Your task to perform on an android device: turn smart compose on in the gmail app Image 0: 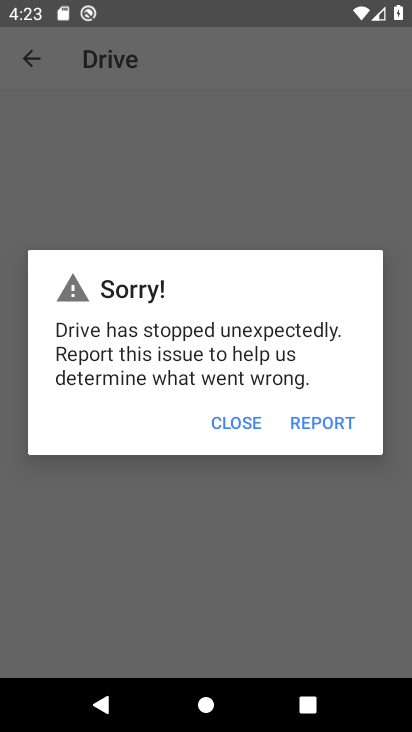
Step 0: press home button
Your task to perform on an android device: turn smart compose on in the gmail app Image 1: 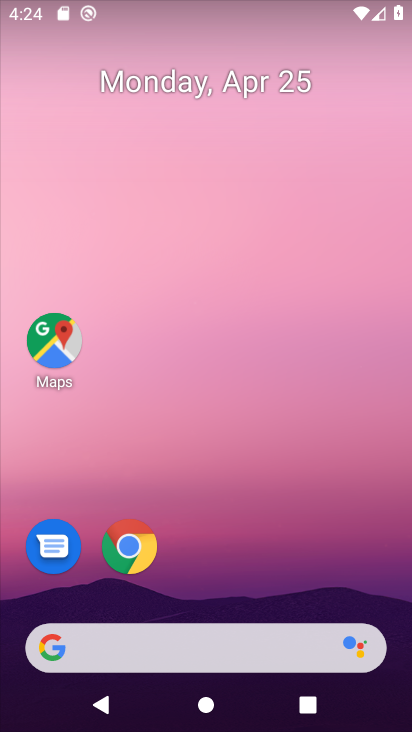
Step 1: drag from (279, 453) to (390, 2)
Your task to perform on an android device: turn smart compose on in the gmail app Image 2: 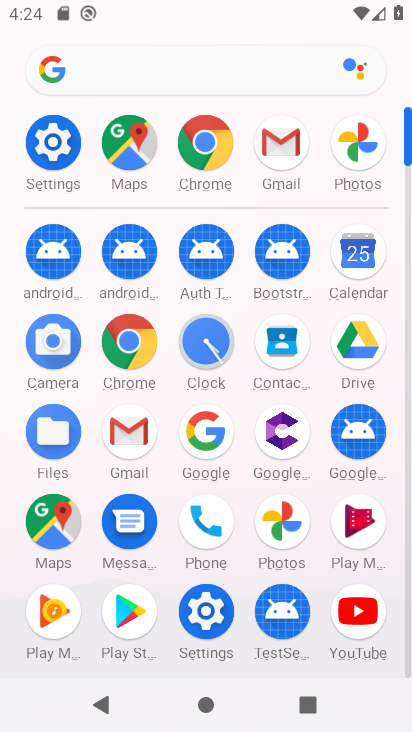
Step 2: click (264, 141)
Your task to perform on an android device: turn smart compose on in the gmail app Image 3: 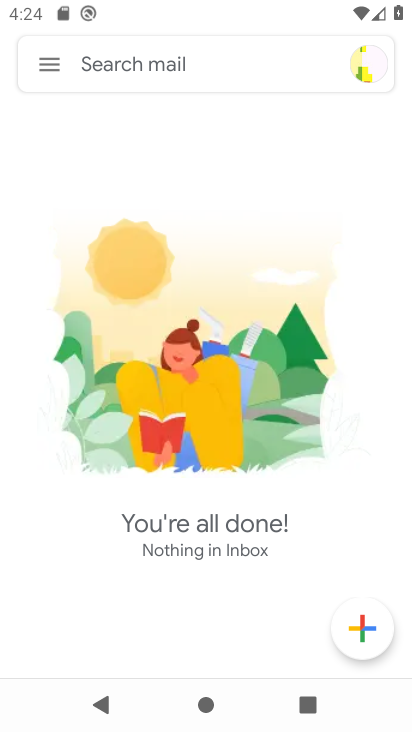
Step 3: click (43, 76)
Your task to perform on an android device: turn smart compose on in the gmail app Image 4: 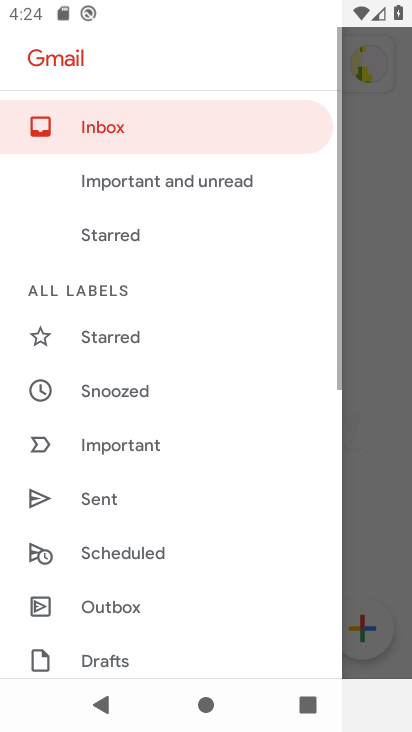
Step 4: drag from (206, 486) to (333, 119)
Your task to perform on an android device: turn smart compose on in the gmail app Image 5: 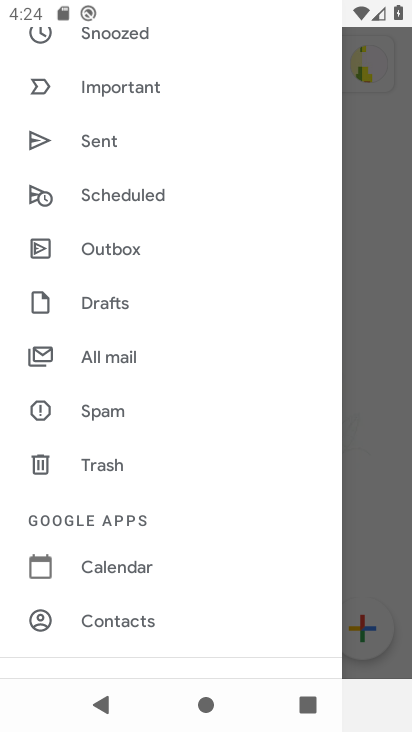
Step 5: drag from (222, 477) to (307, 42)
Your task to perform on an android device: turn smart compose on in the gmail app Image 6: 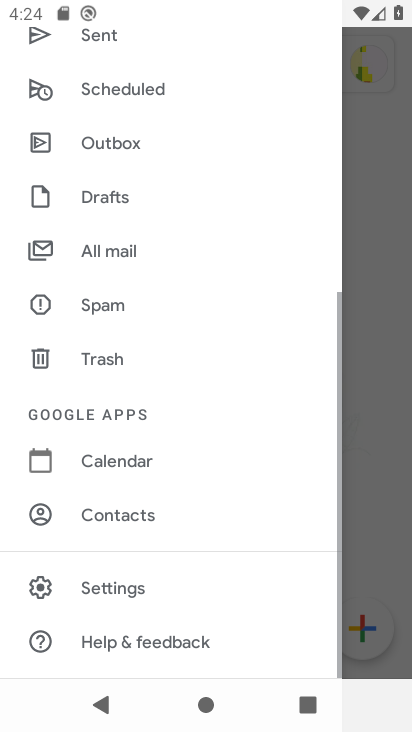
Step 6: click (150, 568)
Your task to perform on an android device: turn smart compose on in the gmail app Image 7: 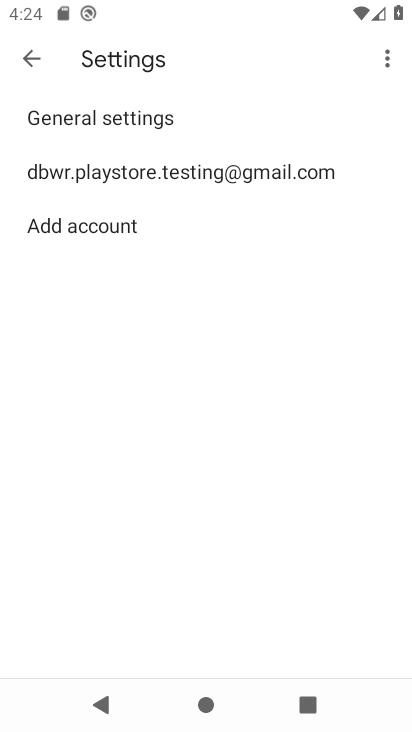
Step 7: click (169, 184)
Your task to perform on an android device: turn smart compose on in the gmail app Image 8: 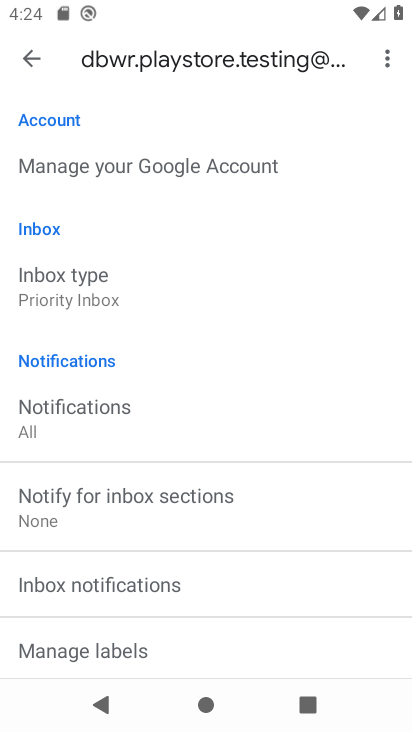
Step 8: task complete